Your task to perform on an android device: turn off notifications in google photos Image 0: 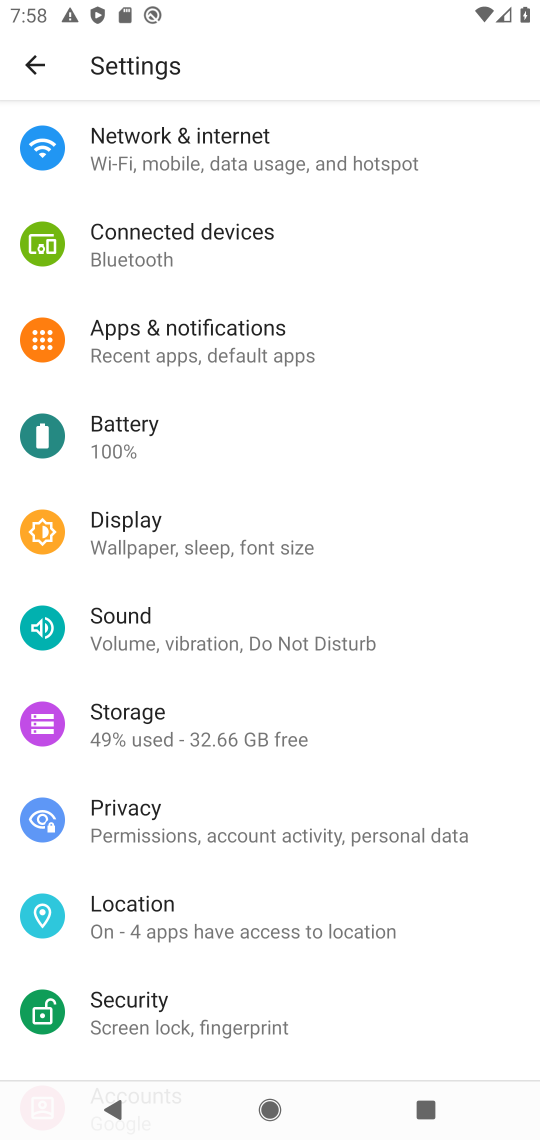
Step 0: press home button
Your task to perform on an android device: turn off notifications in google photos Image 1: 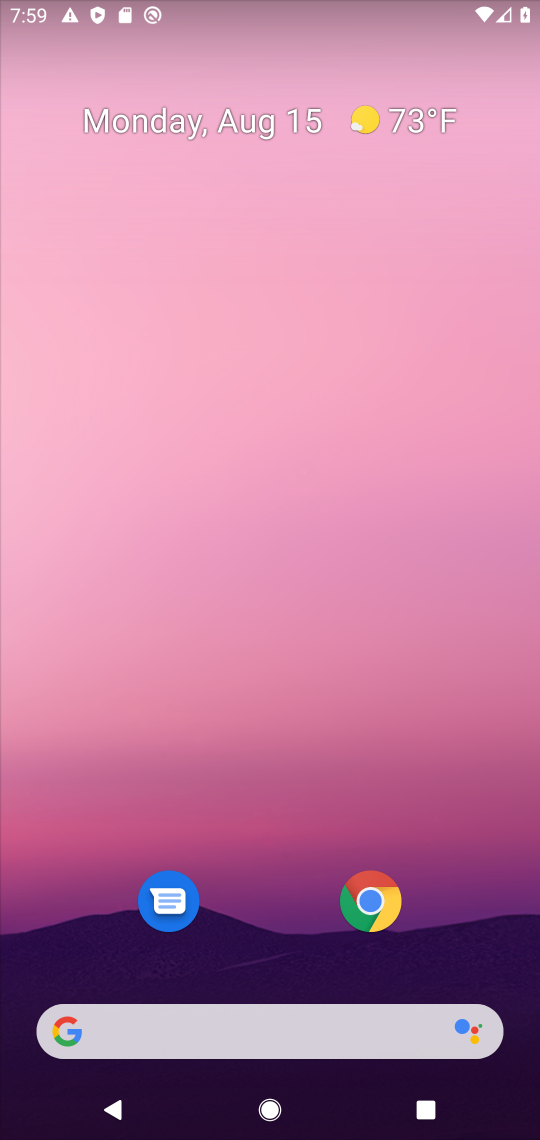
Step 1: drag from (201, 750) to (131, 23)
Your task to perform on an android device: turn off notifications in google photos Image 2: 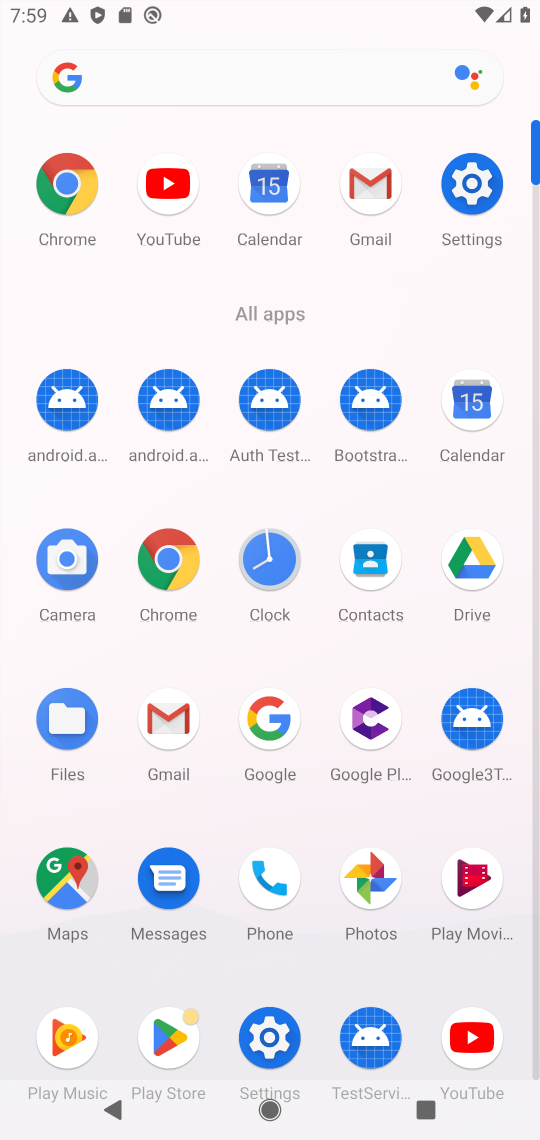
Step 2: click (379, 896)
Your task to perform on an android device: turn off notifications in google photos Image 3: 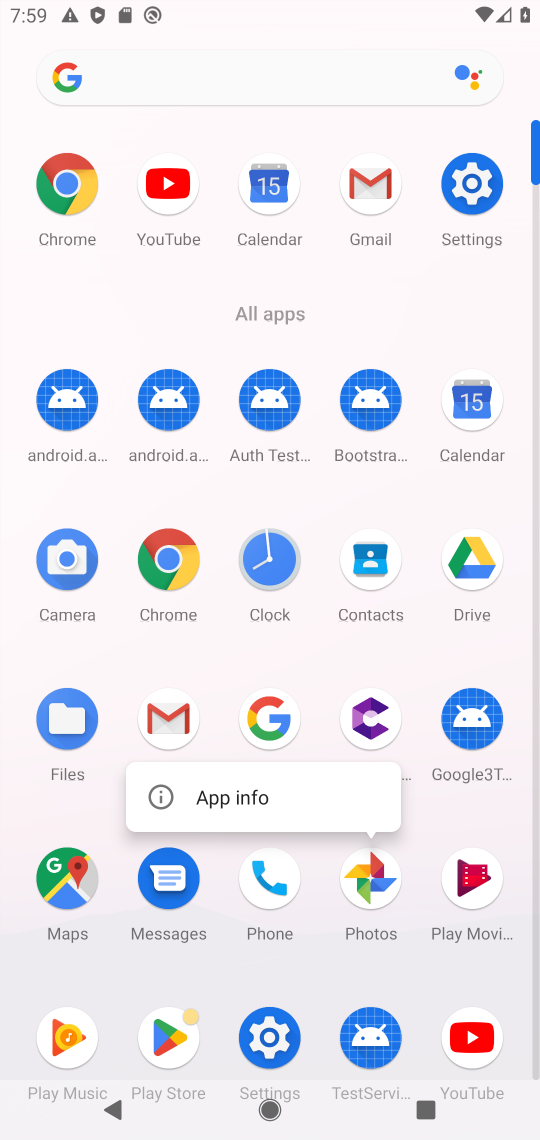
Step 3: click (379, 896)
Your task to perform on an android device: turn off notifications in google photos Image 4: 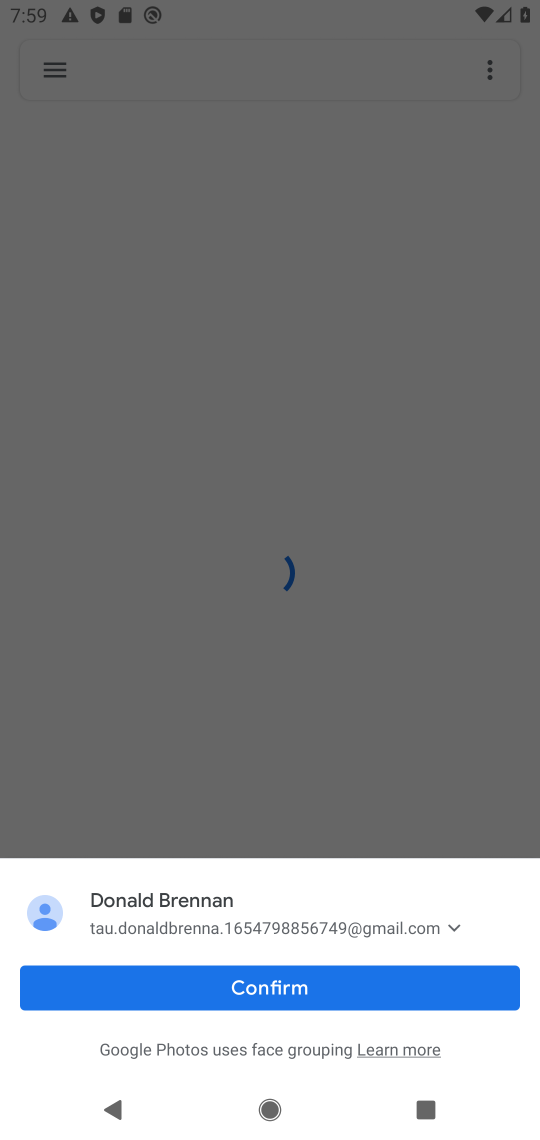
Step 4: click (331, 997)
Your task to perform on an android device: turn off notifications in google photos Image 5: 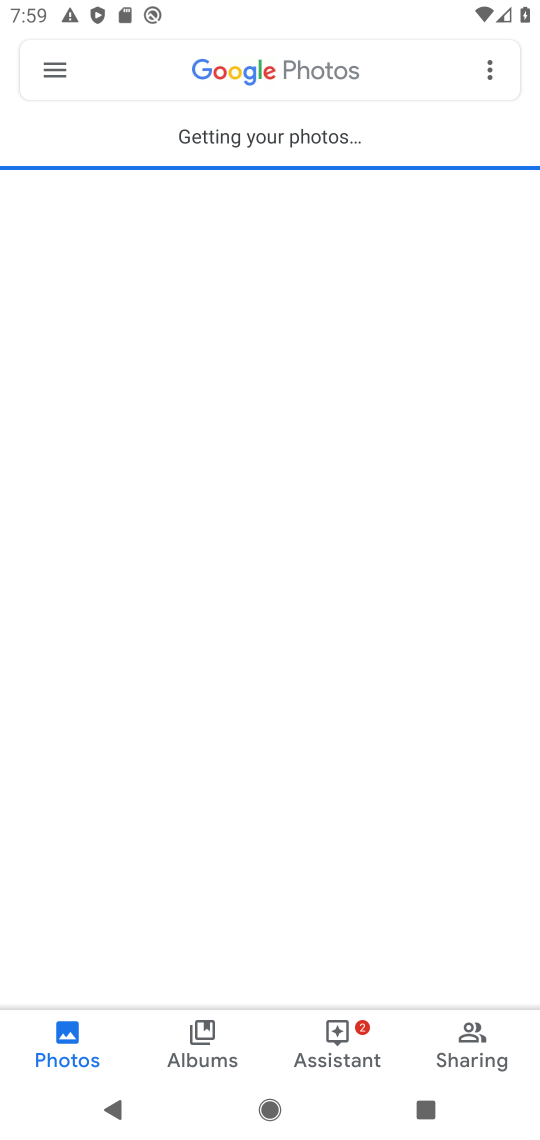
Step 5: click (50, 56)
Your task to perform on an android device: turn off notifications in google photos Image 6: 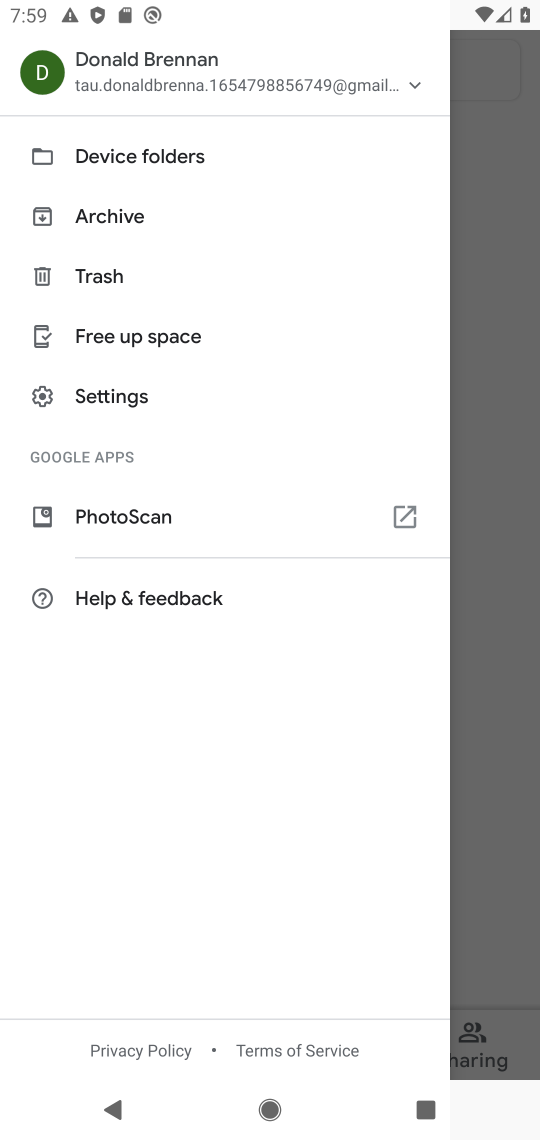
Step 6: click (105, 394)
Your task to perform on an android device: turn off notifications in google photos Image 7: 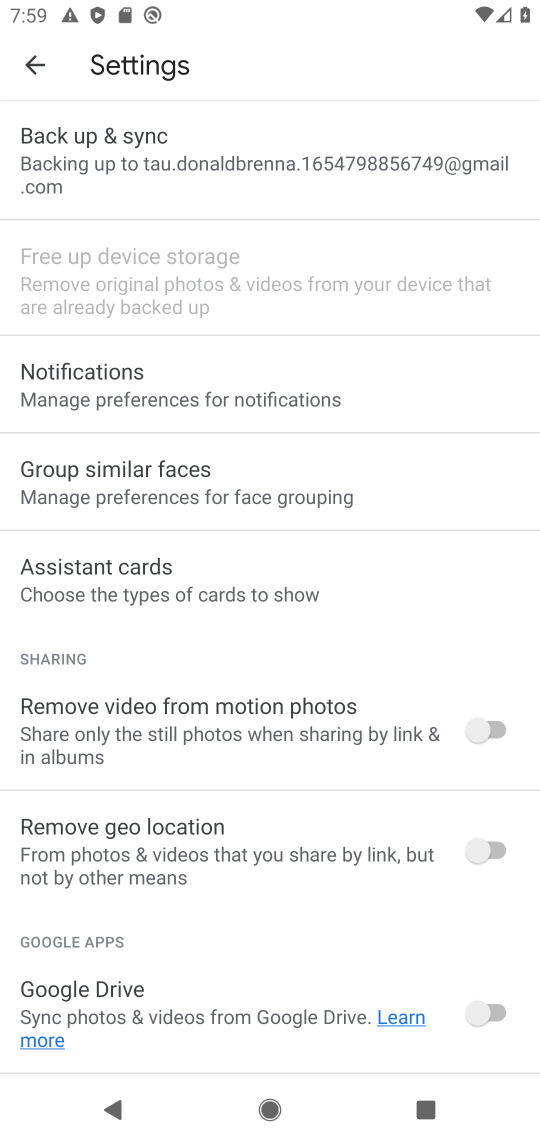
Step 7: click (127, 386)
Your task to perform on an android device: turn off notifications in google photos Image 8: 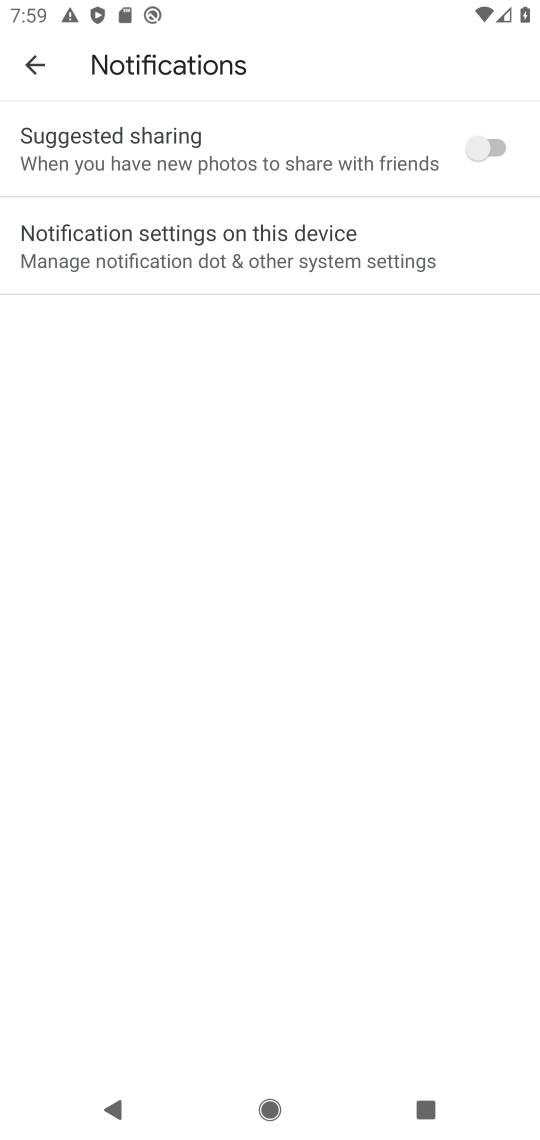
Step 8: click (226, 237)
Your task to perform on an android device: turn off notifications in google photos Image 9: 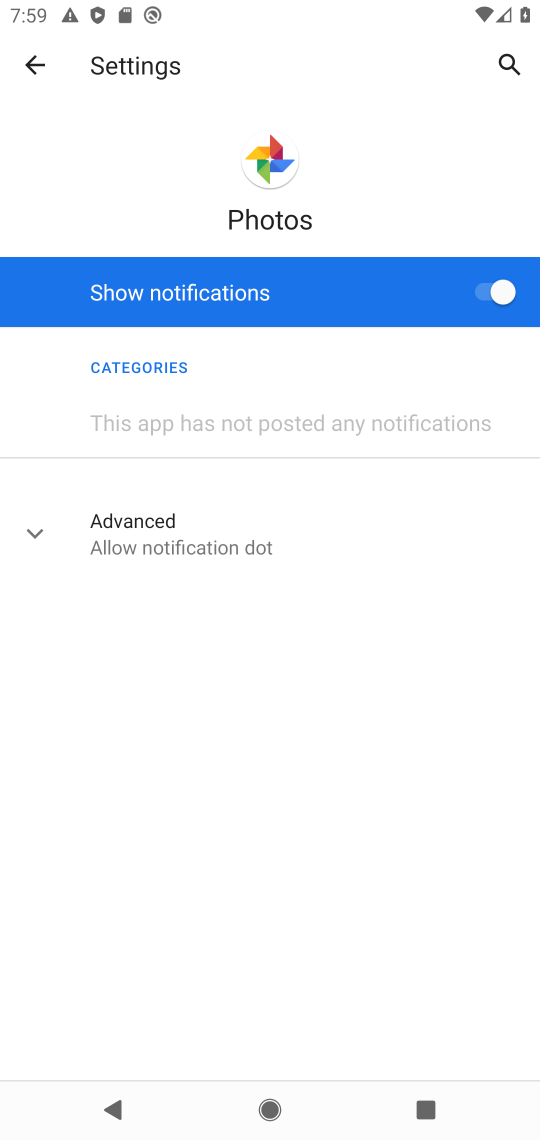
Step 9: click (457, 282)
Your task to perform on an android device: turn off notifications in google photos Image 10: 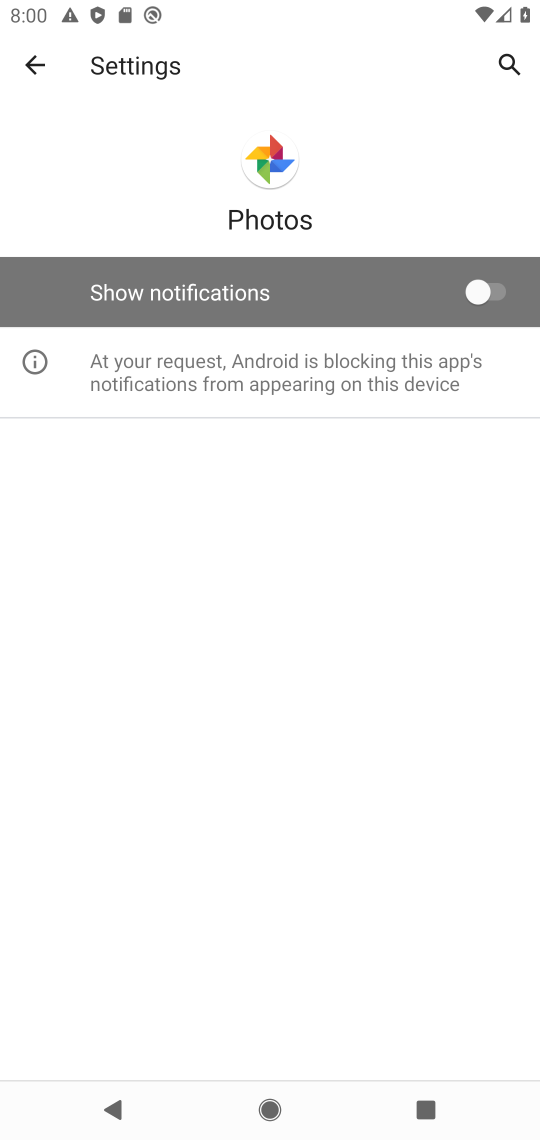
Step 10: task complete